Your task to perform on an android device: Add "dell xps" to the cart on ebay, then select checkout. Image 0: 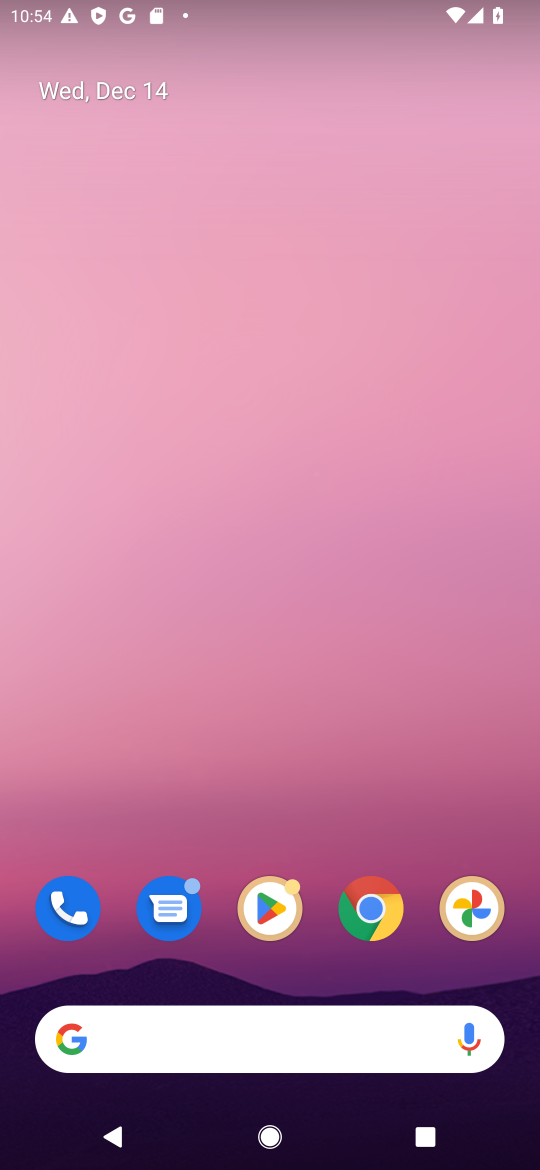
Step 0: task complete